Your task to perform on an android device: toggle airplane mode Image 0: 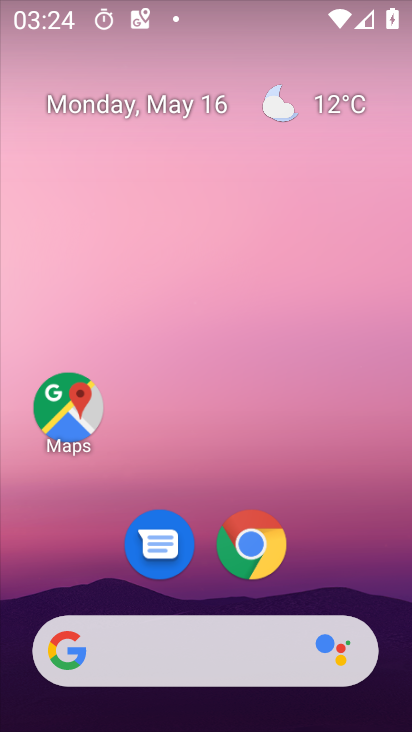
Step 0: drag from (187, 714) to (201, 291)
Your task to perform on an android device: toggle airplane mode Image 1: 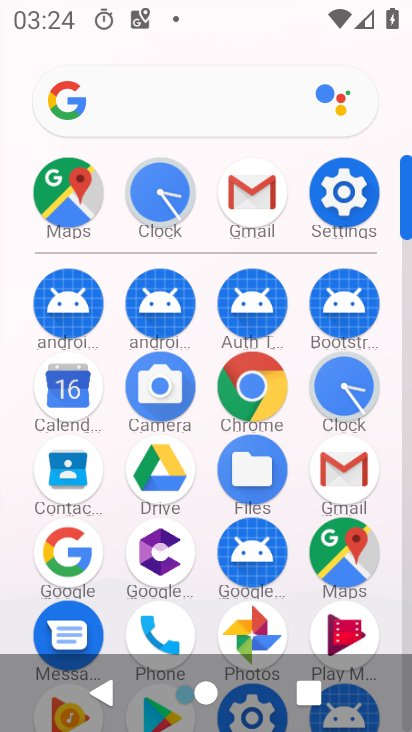
Step 1: click (356, 195)
Your task to perform on an android device: toggle airplane mode Image 2: 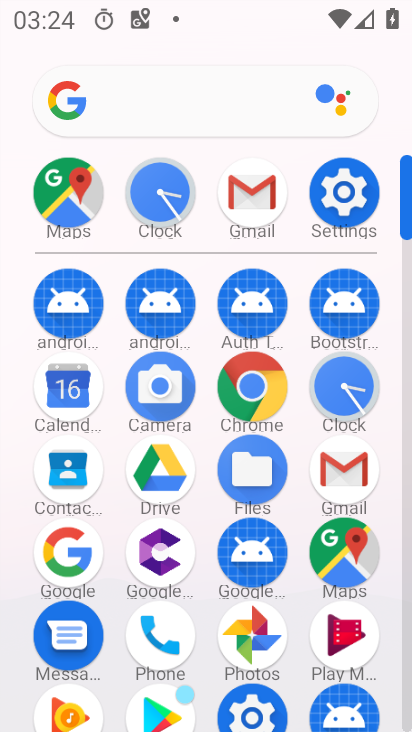
Step 2: click (343, 188)
Your task to perform on an android device: toggle airplane mode Image 3: 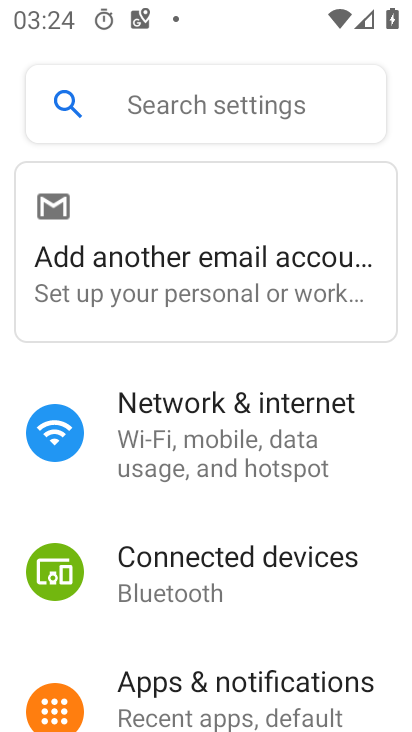
Step 3: click (195, 420)
Your task to perform on an android device: toggle airplane mode Image 4: 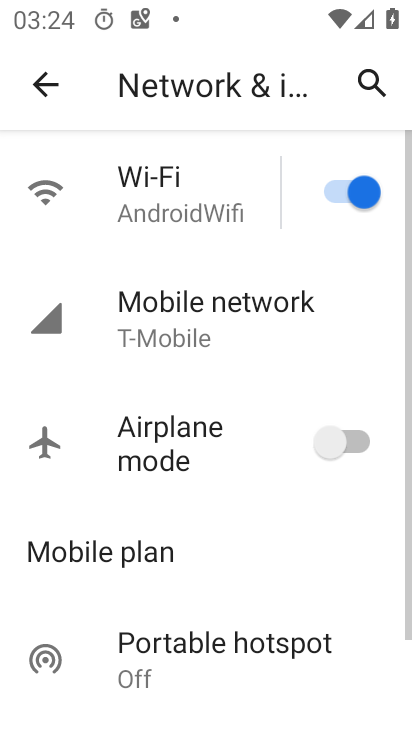
Step 4: click (360, 443)
Your task to perform on an android device: toggle airplane mode Image 5: 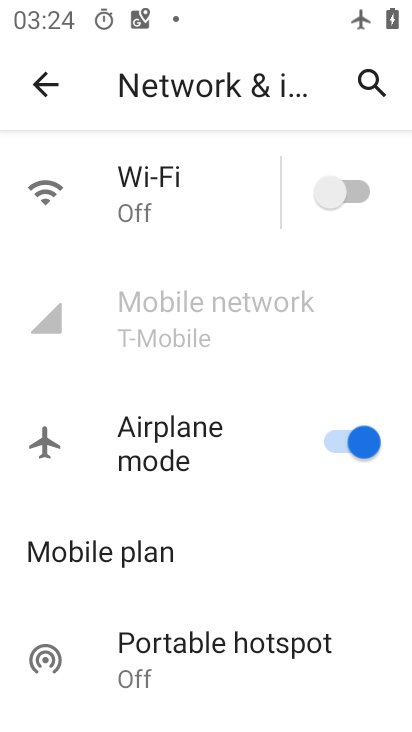
Step 5: task complete